Your task to perform on an android device: Show me productivity apps on the Play Store Image 0: 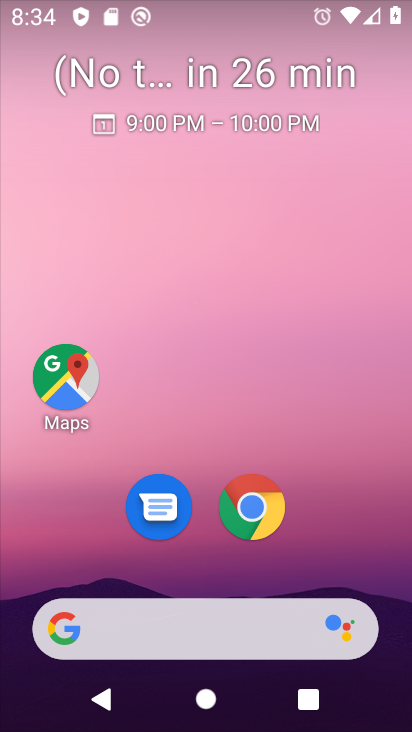
Step 0: drag from (387, 580) to (323, 123)
Your task to perform on an android device: Show me productivity apps on the Play Store Image 1: 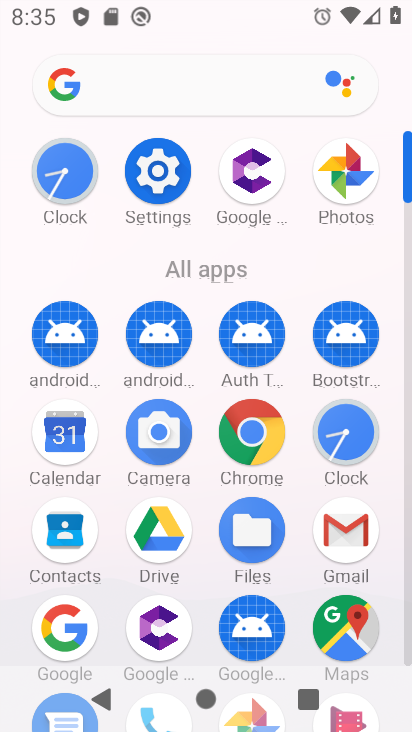
Step 1: click (408, 659)
Your task to perform on an android device: Show me productivity apps on the Play Store Image 2: 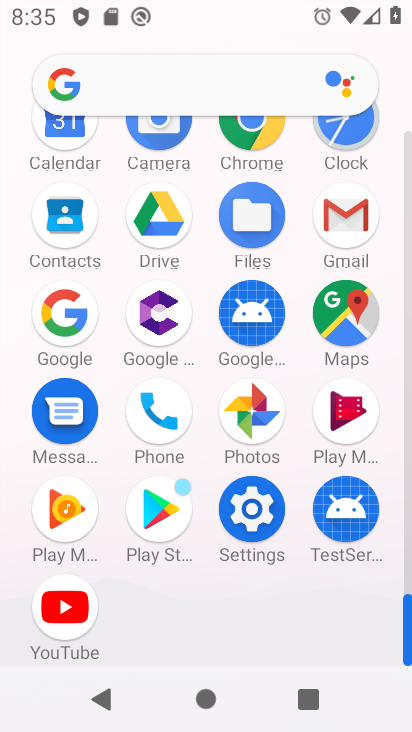
Step 2: click (151, 507)
Your task to perform on an android device: Show me productivity apps on the Play Store Image 3: 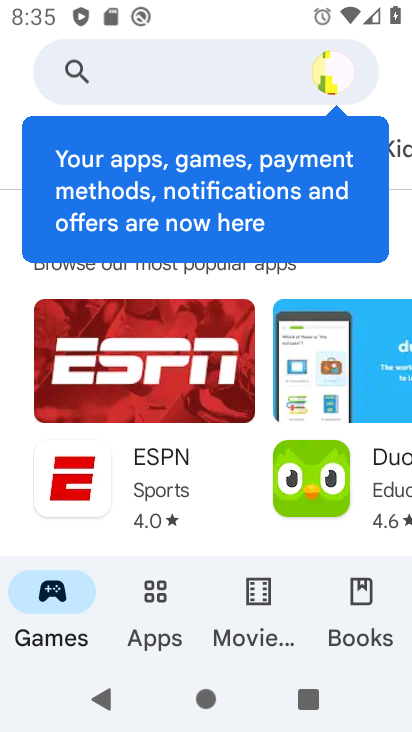
Step 3: click (168, 584)
Your task to perform on an android device: Show me productivity apps on the Play Store Image 4: 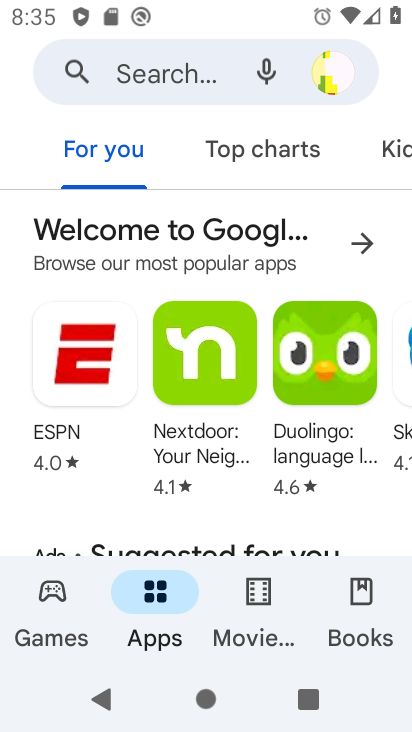
Step 4: drag from (258, 515) to (282, 573)
Your task to perform on an android device: Show me productivity apps on the Play Store Image 5: 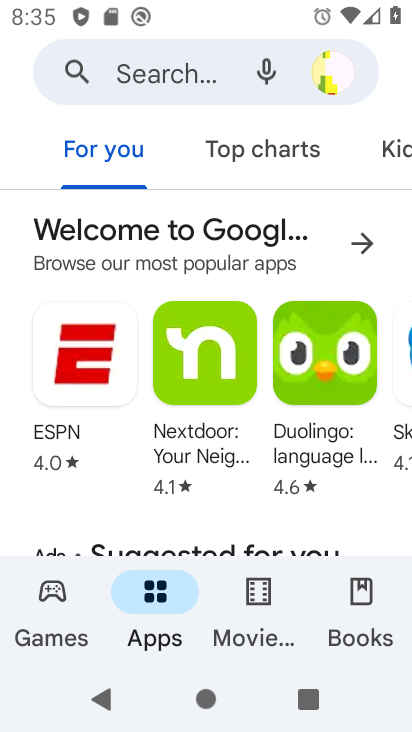
Step 5: drag from (380, 163) to (249, 161)
Your task to perform on an android device: Show me productivity apps on the Play Store Image 6: 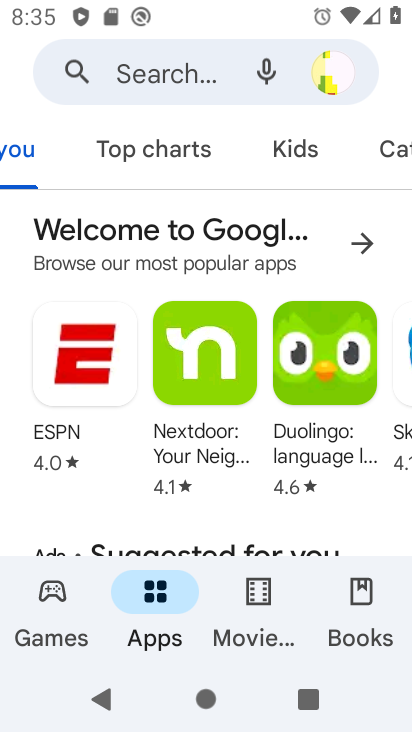
Step 6: click (384, 148)
Your task to perform on an android device: Show me productivity apps on the Play Store Image 7: 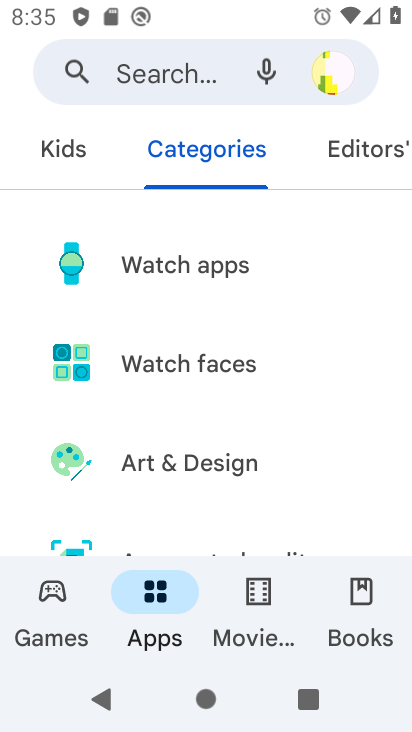
Step 7: drag from (260, 522) to (230, 248)
Your task to perform on an android device: Show me productivity apps on the Play Store Image 8: 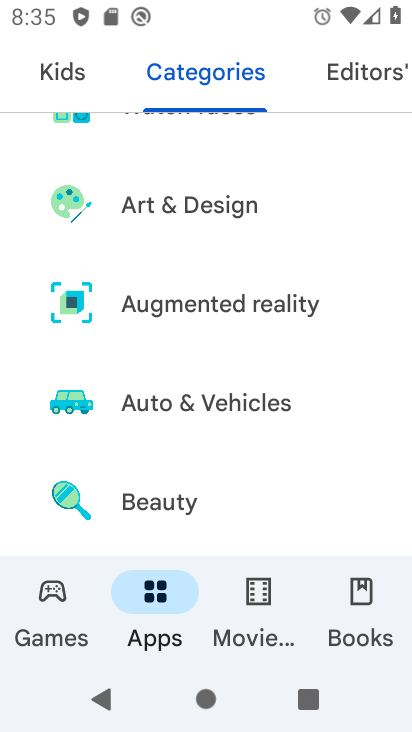
Step 8: drag from (262, 551) to (211, 298)
Your task to perform on an android device: Show me productivity apps on the Play Store Image 9: 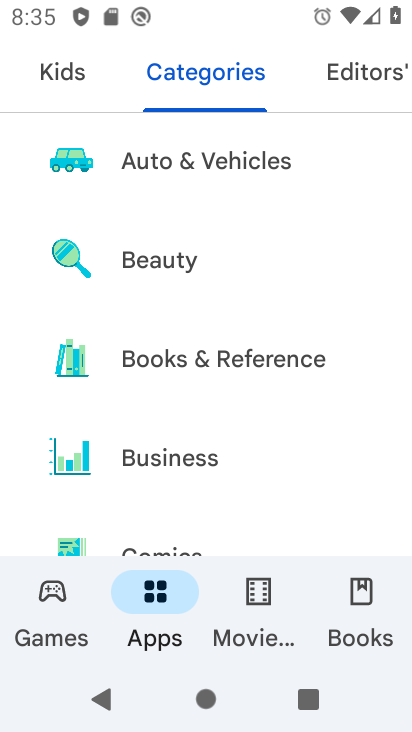
Step 9: drag from (226, 542) to (225, 74)
Your task to perform on an android device: Show me productivity apps on the Play Store Image 10: 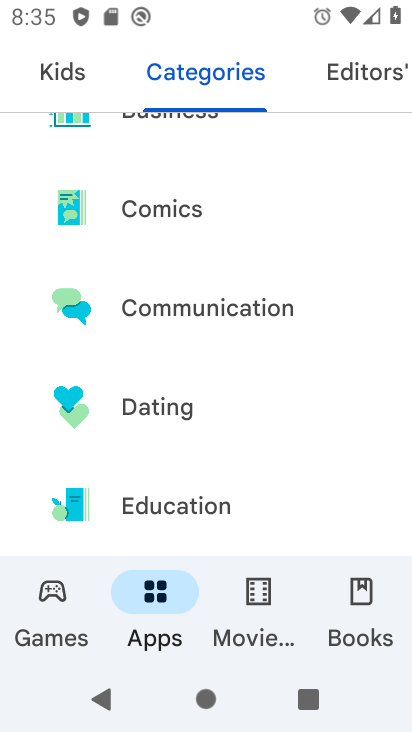
Step 10: drag from (231, 488) to (185, 1)
Your task to perform on an android device: Show me productivity apps on the Play Store Image 11: 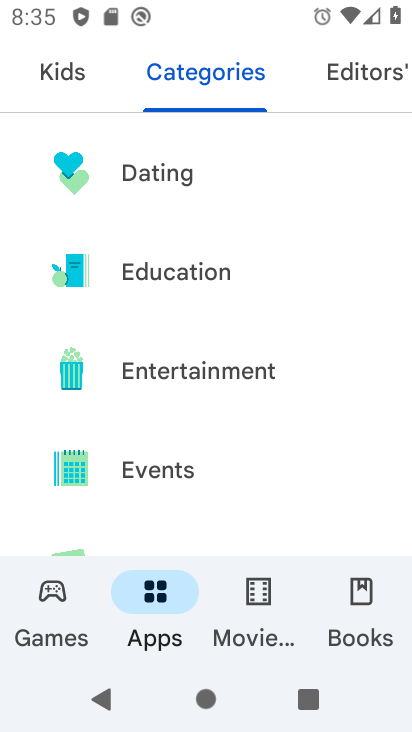
Step 11: drag from (194, 549) to (223, 21)
Your task to perform on an android device: Show me productivity apps on the Play Store Image 12: 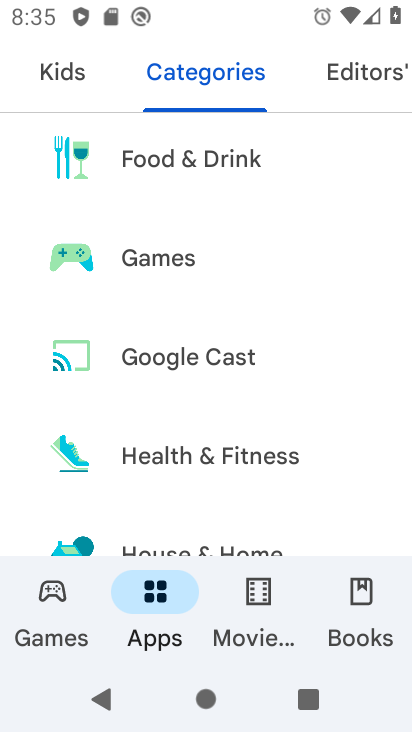
Step 12: drag from (210, 539) to (202, 8)
Your task to perform on an android device: Show me productivity apps on the Play Store Image 13: 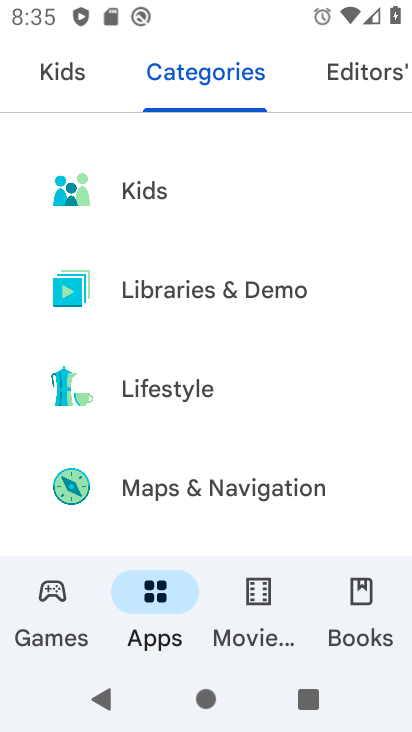
Step 13: drag from (202, 529) to (183, 56)
Your task to perform on an android device: Show me productivity apps on the Play Store Image 14: 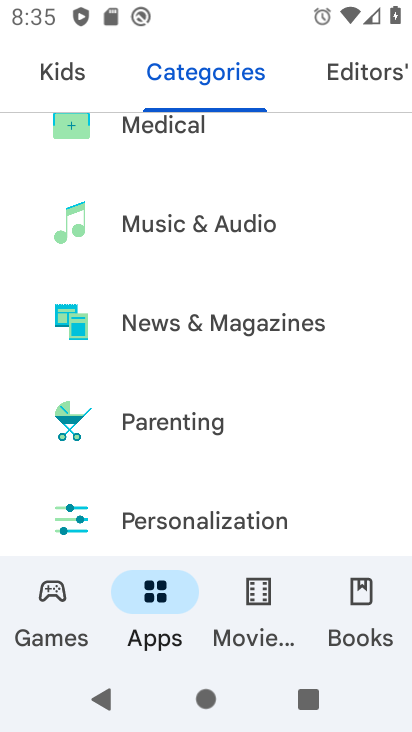
Step 14: drag from (186, 487) to (161, 110)
Your task to perform on an android device: Show me productivity apps on the Play Store Image 15: 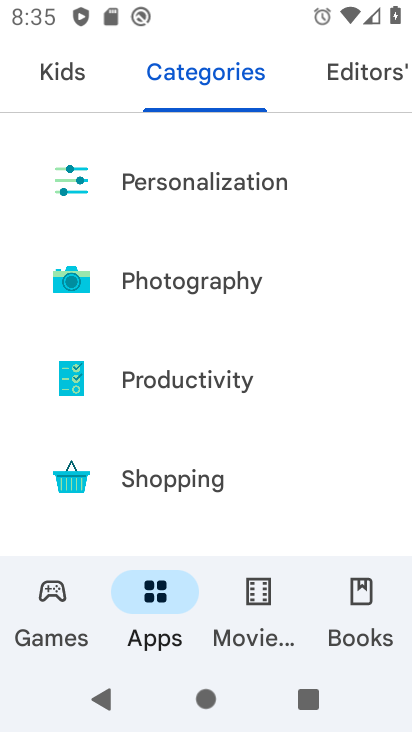
Step 15: click (175, 376)
Your task to perform on an android device: Show me productivity apps on the Play Store Image 16: 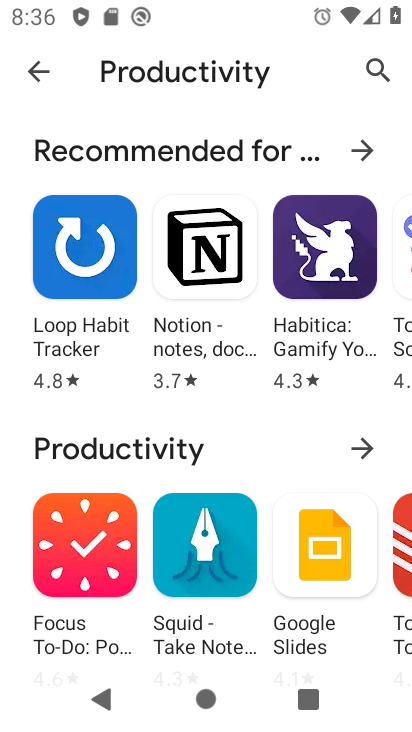
Step 16: task complete